Your task to perform on an android device: Open settings on Google Maps Image 0: 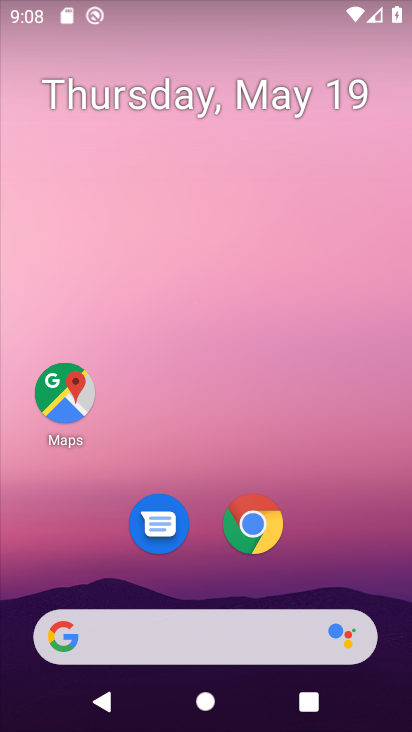
Step 0: click (55, 396)
Your task to perform on an android device: Open settings on Google Maps Image 1: 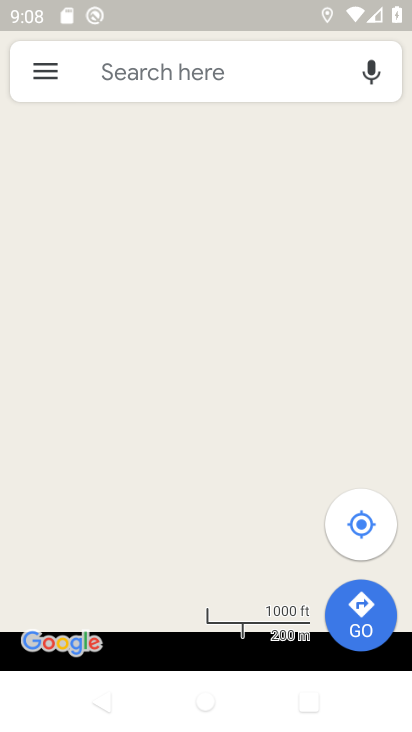
Step 1: click (44, 69)
Your task to perform on an android device: Open settings on Google Maps Image 2: 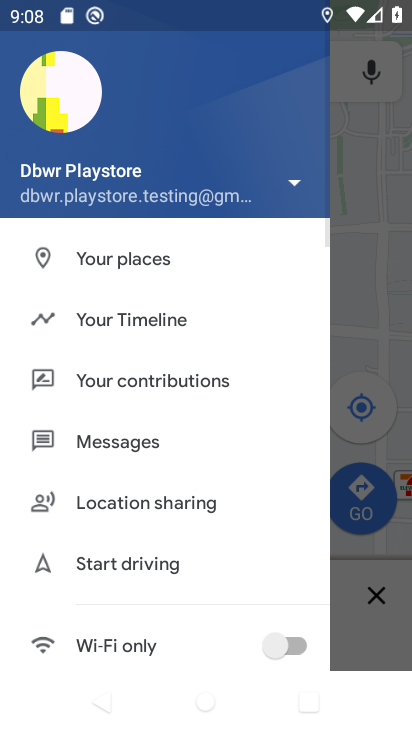
Step 2: drag from (201, 519) to (209, 0)
Your task to perform on an android device: Open settings on Google Maps Image 3: 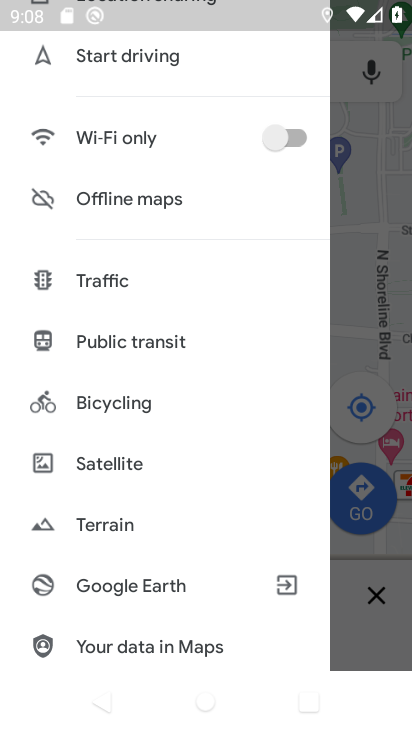
Step 3: drag from (185, 459) to (206, 108)
Your task to perform on an android device: Open settings on Google Maps Image 4: 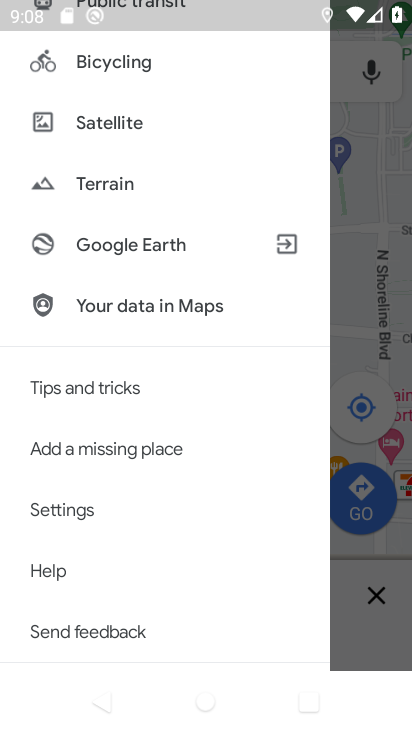
Step 4: click (84, 515)
Your task to perform on an android device: Open settings on Google Maps Image 5: 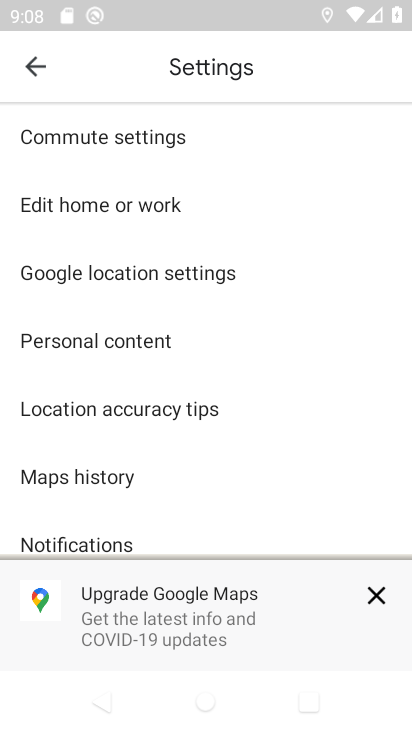
Step 5: task complete